Your task to perform on an android device: Open Chrome and go to settings Image 0: 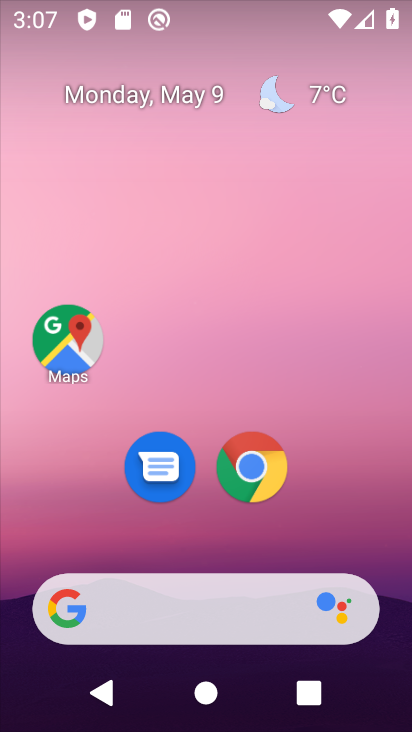
Step 0: click (260, 471)
Your task to perform on an android device: Open Chrome and go to settings Image 1: 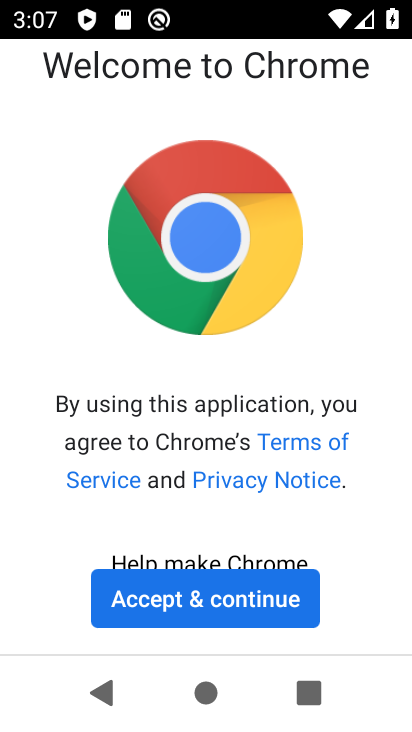
Step 1: click (220, 602)
Your task to perform on an android device: Open Chrome and go to settings Image 2: 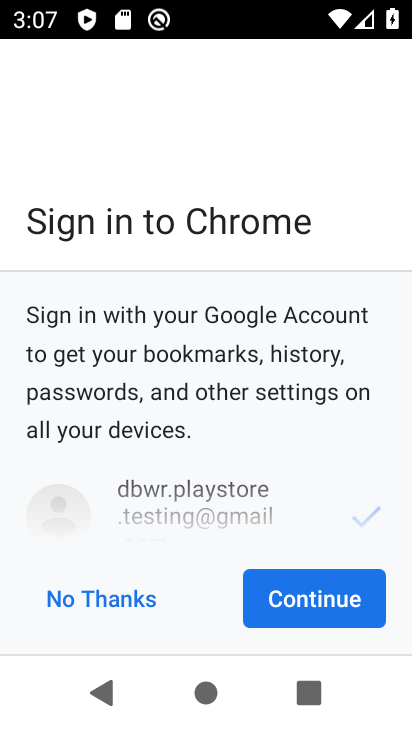
Step 2: click (78, 604)
Your task to perform on an android device: Open Chrome and go to settings Image 3: 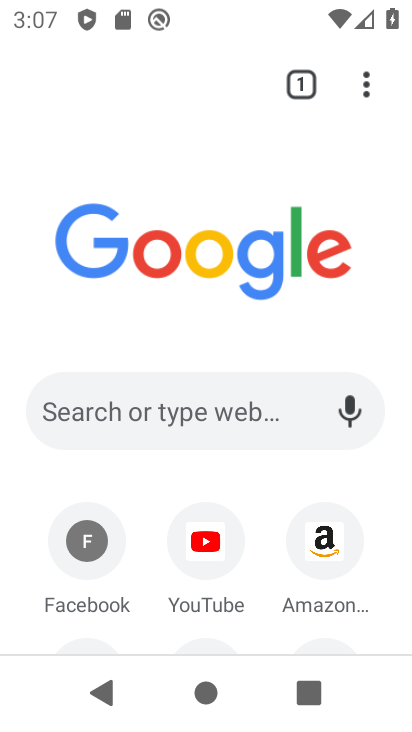
Step 3: task complete